Your task to perform on an android device: Go to Google Image 0: 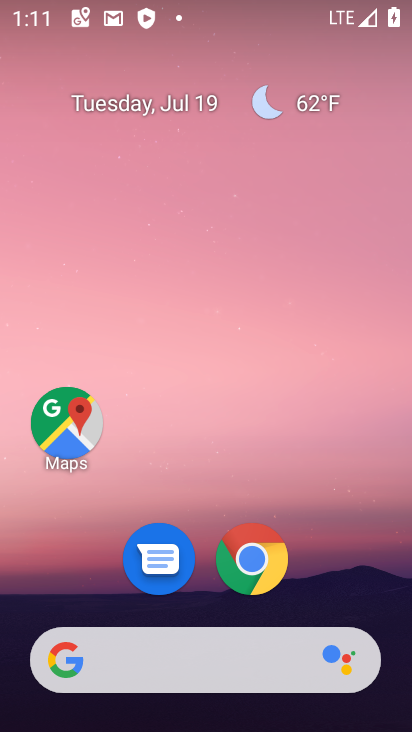
Step 0: drag from (194, 662) to (211, 157)
Your task to perform on an android device: Go to Google Image 1: 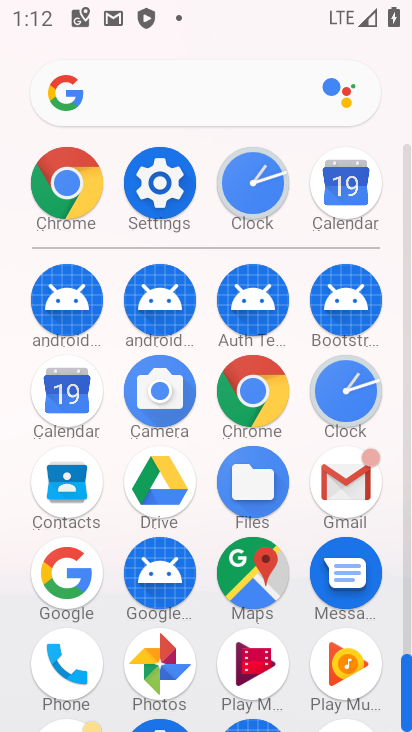
Step 1: drag from (152, 519) to (166, 87)
Your task to perform on an android device: Go to Google Image 2: 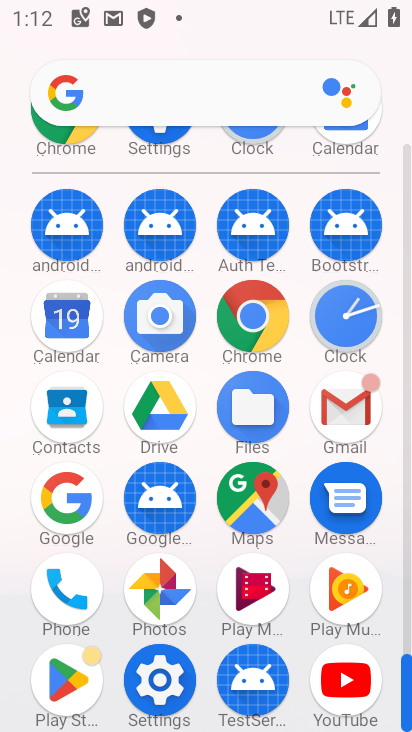
Step 2: click (52, 503)
Your task to perform on an android device: Go to Google Image 3: 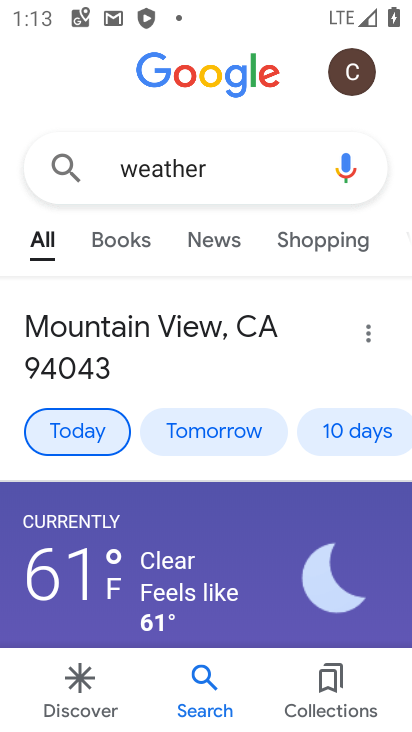
Step 3: task complete